Your task to perform on an android device: toggle airplane mode Image 0: 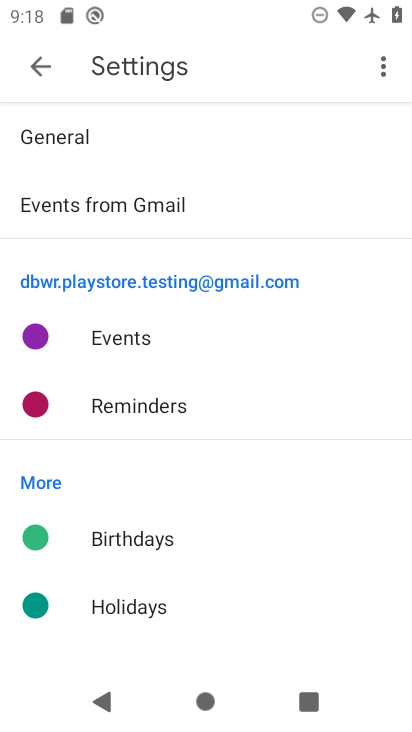
Step 0: press home button
Your task to perform on an android device: toggle airplane mode Image 1: 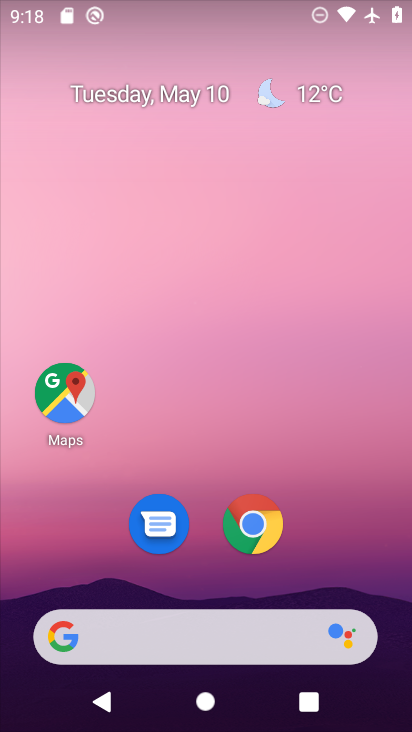
Step 1: drag from (306, 470) to (278, 19)
Your task to perform on an android device: toggle airplane mode Image 2: 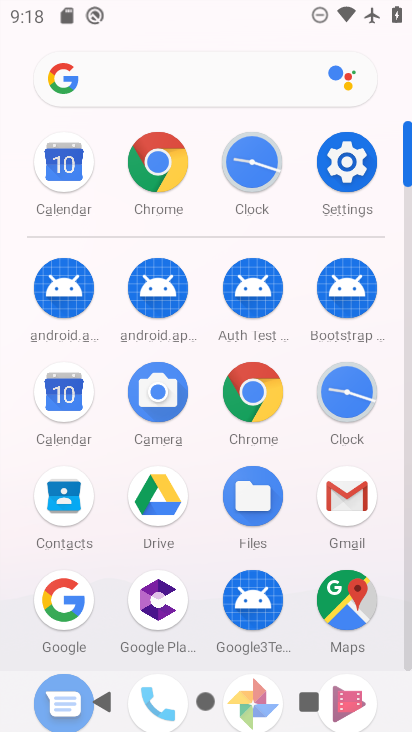
Step 2: click (336, 161)
Your task to perform on an android device: toggle airplane mode Image 3: 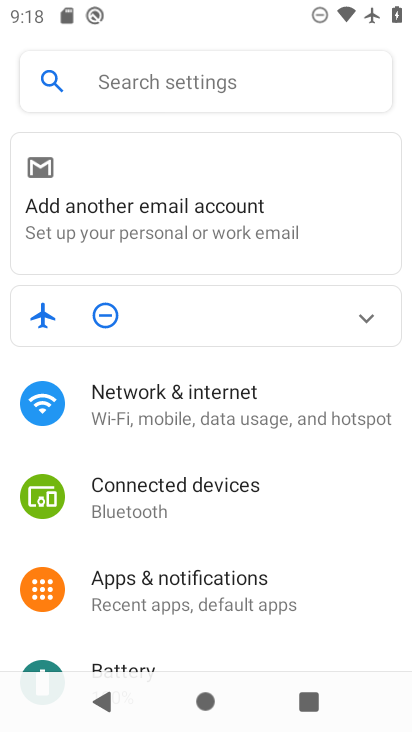
Step 3: click (216, 397)
Your task to perform on an android device: toggle airplane mode Image 4: 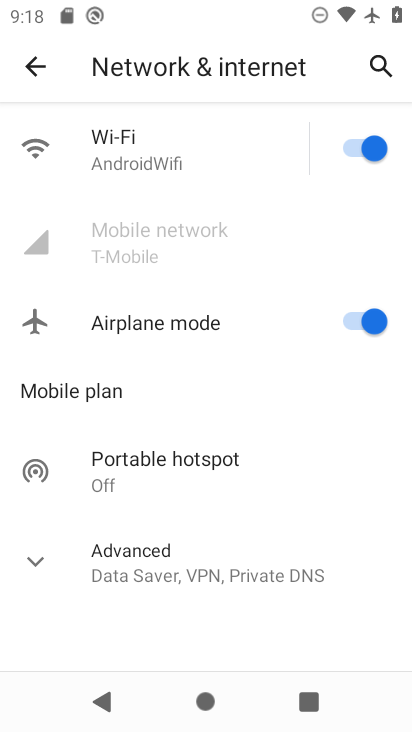
Step 4: click (353, 312)
Your task to perform on an android device: toggle airplane mode Image 5: 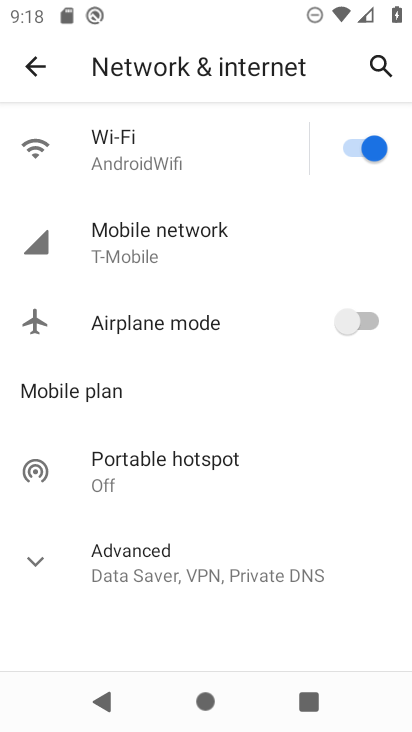
Step 5: task complete